Your task to perform on an android device: check battery use Image 0: 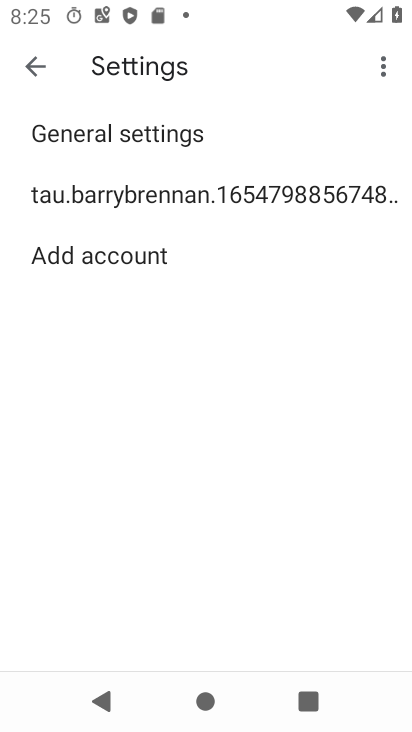
Step 0: press home button
Your task to perform on an android device: check battery use Image 1: 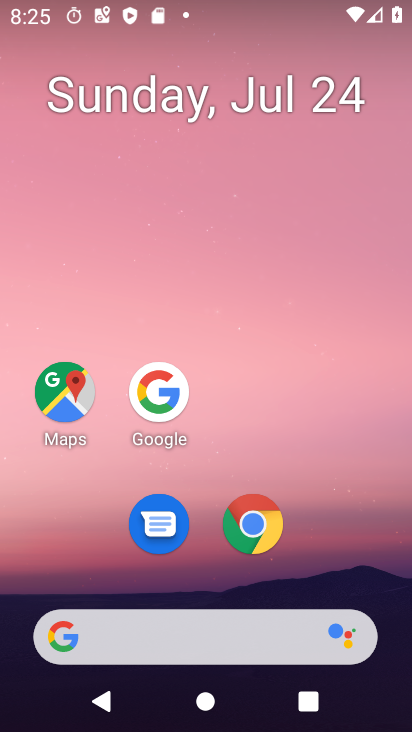
Step 1: drag from (168, 654) to (373, 2)
Your task to perform on an android device: check battery use Image 2: 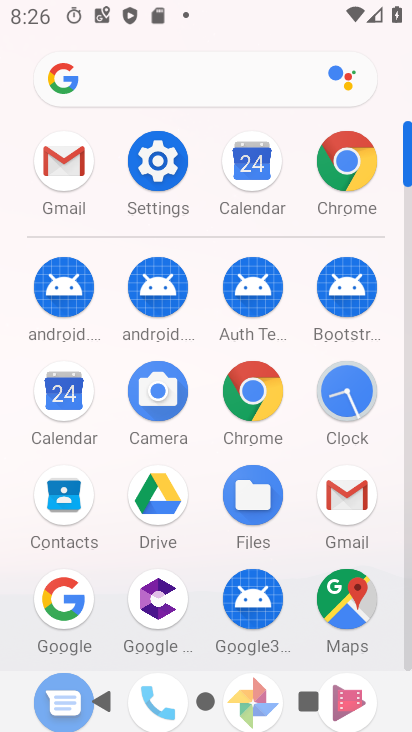
Step 2: click (161, 171)
Your task to perform on an android device: check battery use Image 3: 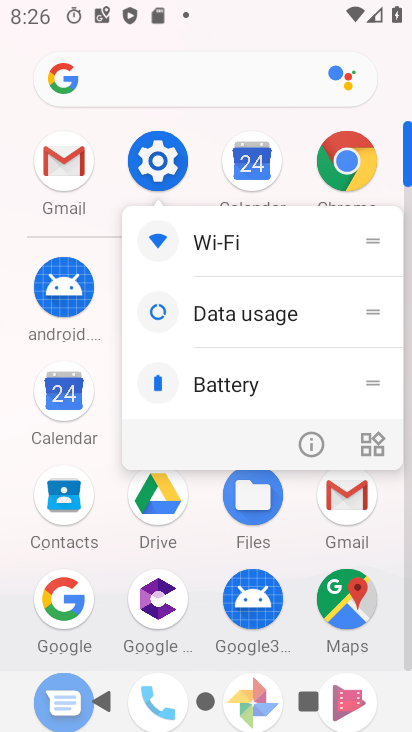
Step 3: click (155, 172)
Your task to perform on an android device: check battery use Image 4: 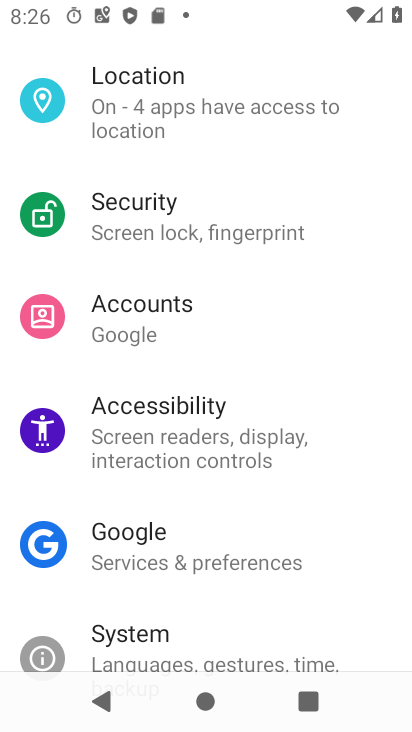
Step 4: drag from (256, 606) to (345, 200)
Your task to perform on an android device: check battery use Image 5: 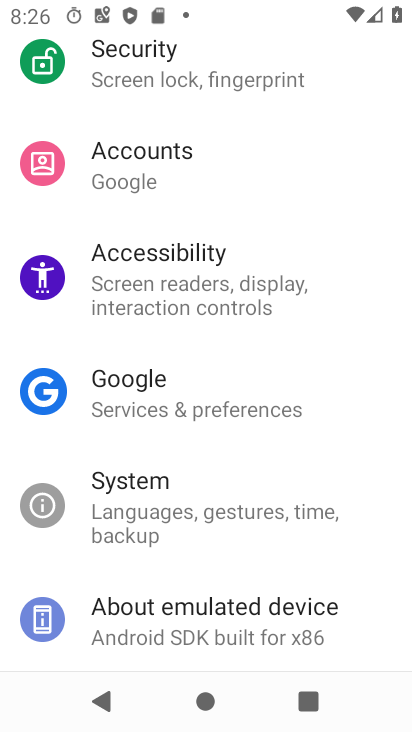
Step 5: drag from (319, 174) to (258, 618)
Your task to perform on an android device: check battery use Image 6: 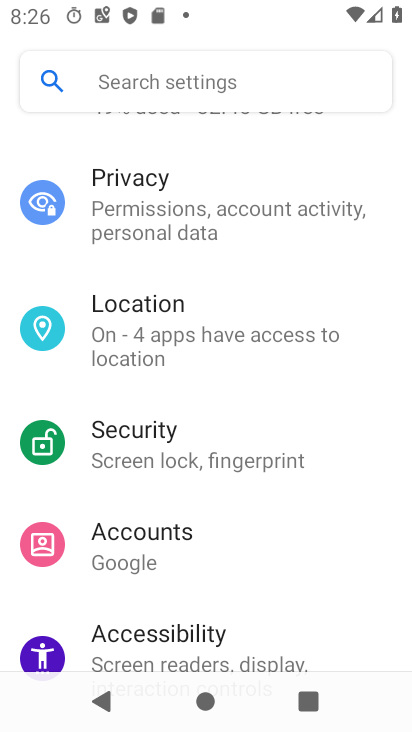
Step 6: drag from (289, 163) to (243, 553)
Your task to perform on an android device: check battery use Image 7: 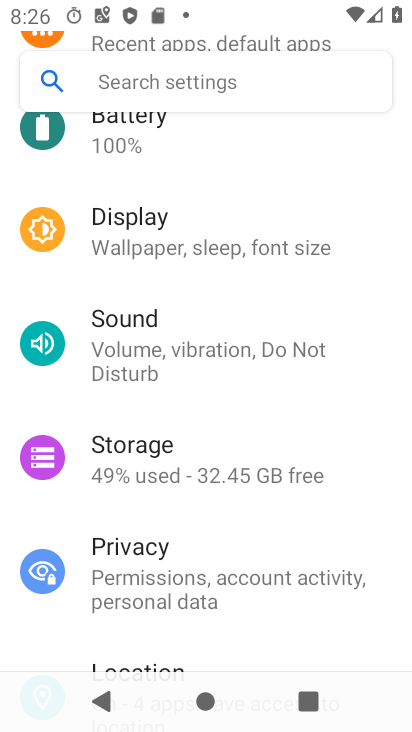
Step 7: drag from (244, 176) to (249, 497)
Your task to perform on an android device: check battery use Image 8: 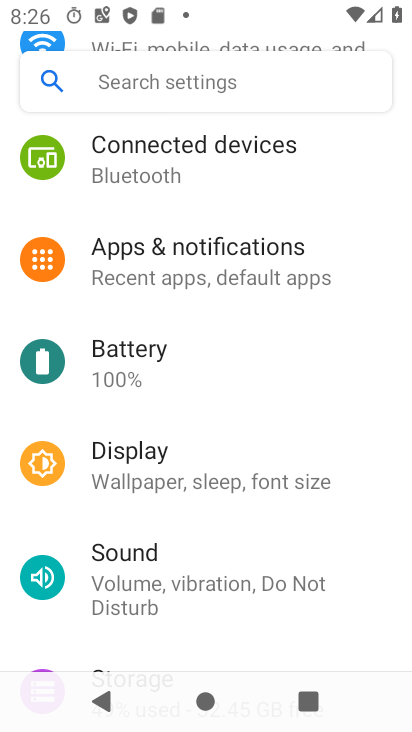
Step 8: click (135, 359)
Your task to perform on an android device: check battery use Image 9: 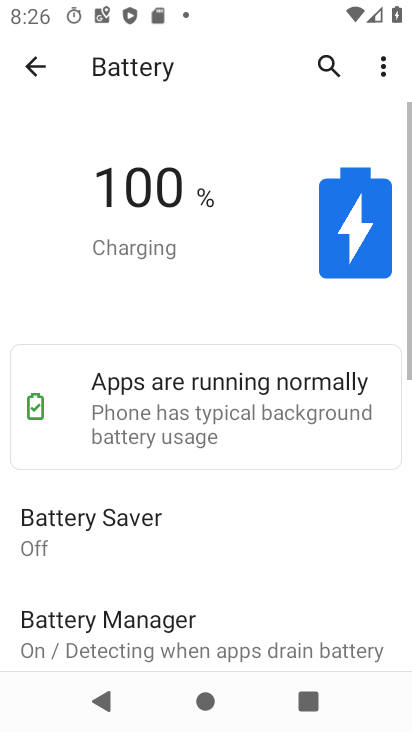
Step 9: click (383, 65)
Your task to perform on an android device: check battery use Image 10: 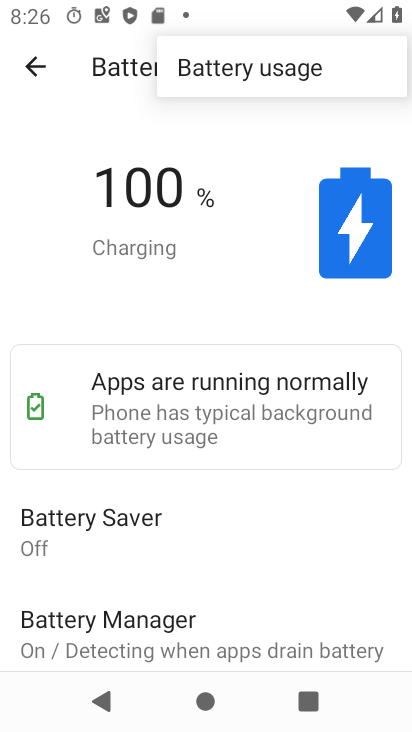
Step 10: click (274, 72)
Your task to perform on an android device: check battery use Image 11: 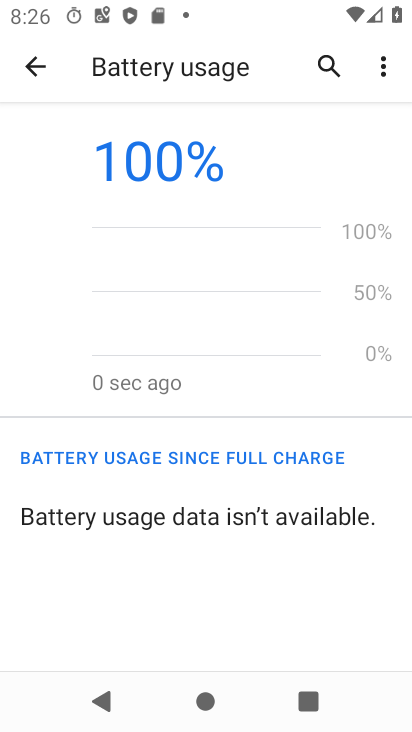
Step 11: task complete